Your task to perform on an android device: see creations saved in the google photos Image 0: 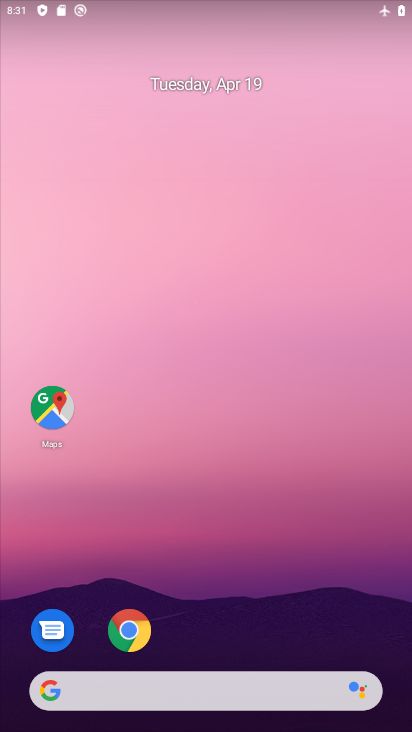
Step 0: drag from (276, 686) to (375, 5)
Your task to perform on an android device: see creations saved in the google photos Image 1: 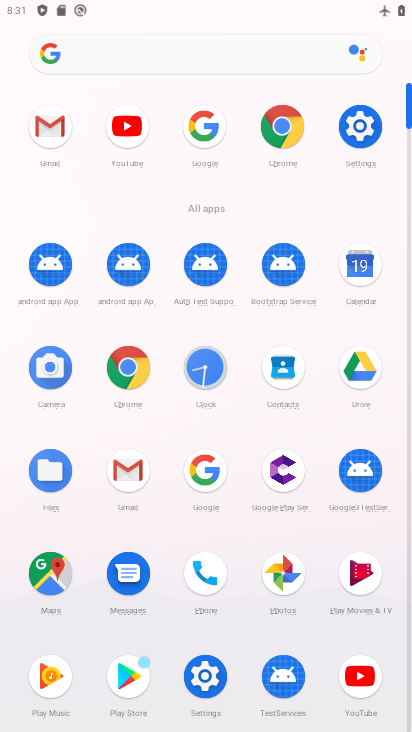
Step 1: click (290, 578)
Your task to perform on an android device: see creations saved in the google photos Image 2: 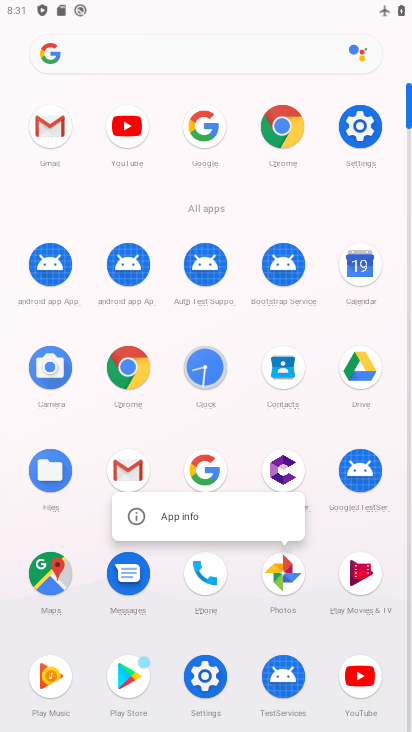
Step 2: click (284, 586)
Your task to perform on an android device: see creations saved in the google photos Image 3: 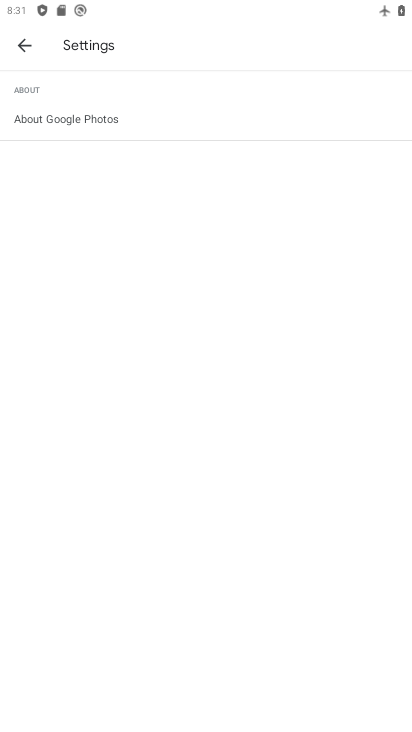
Step 3: click (33, 47)
Your task to perform on an android device: see creations saved in the google photos Image 4: 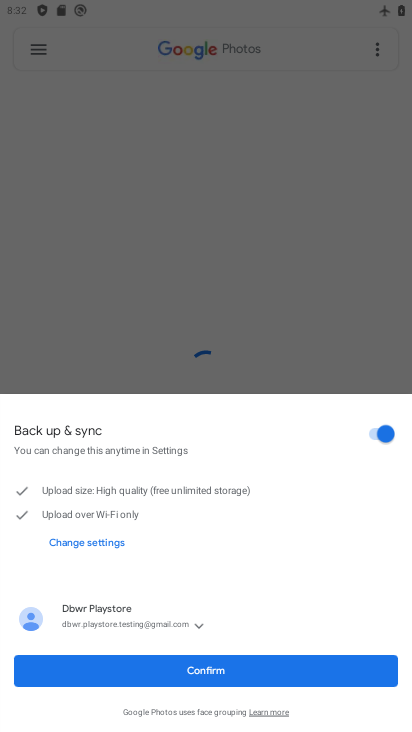
Step 4: click (344, 680)
Your task to perform on an android device: see creations saved in the google photos Image 5: 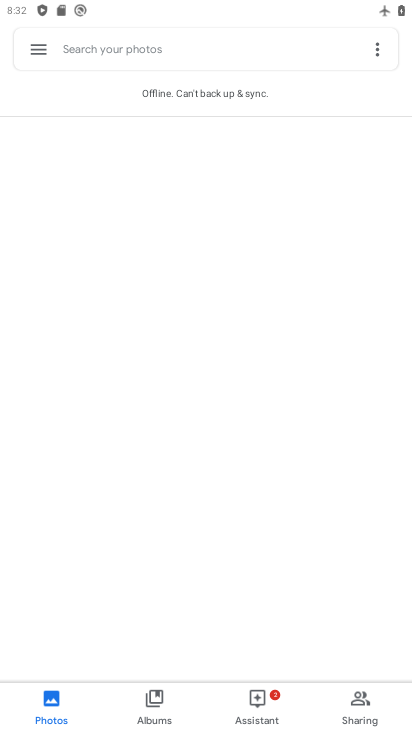
Step 5: click (258, 704)
Your task to perform on an android device: see creations saved in the google photos Image 6: 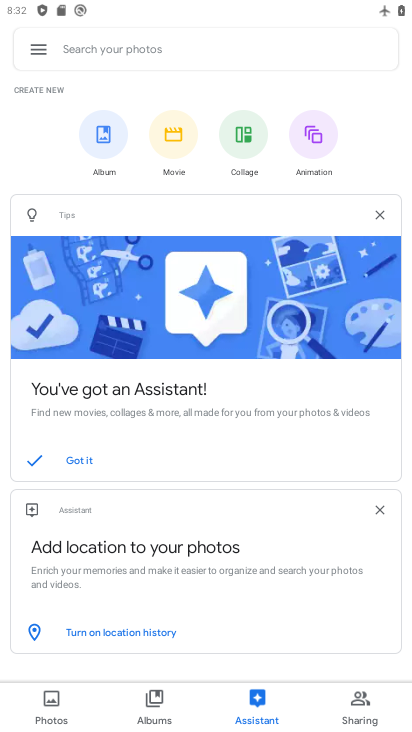
Step 6: task complete